Your task to perform on an android device: Search for Mexican restaurants on Maps Image 0: 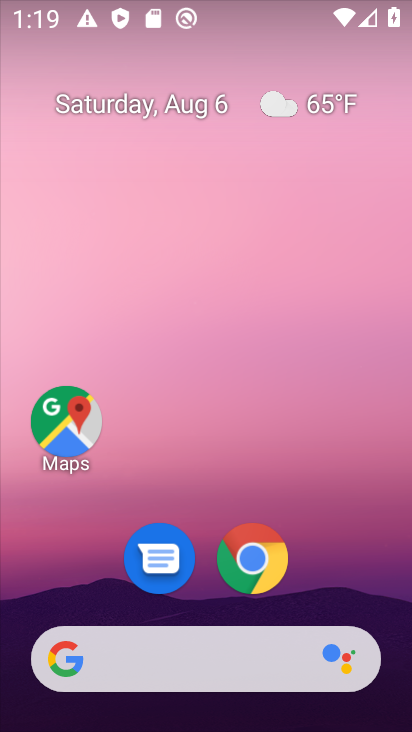
Step 0: click (56, 410)
Your task to perform on an android device: Search for Mexican restaurants on Maps Image 1: 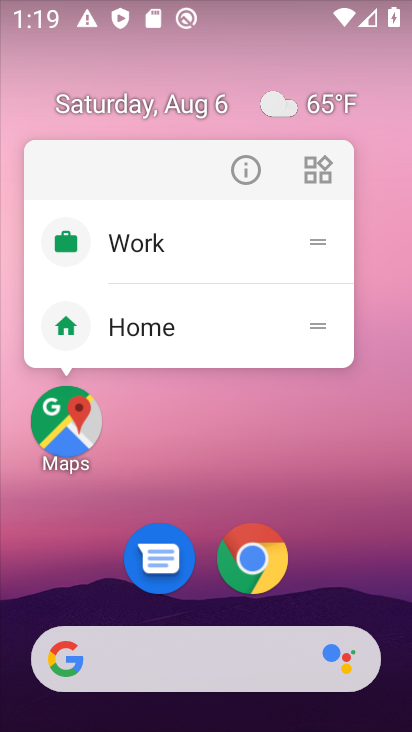
Step 1: click (92, 421)
Your task to perform on an android device: Search for Mexican restaurants on Maps Image 2: 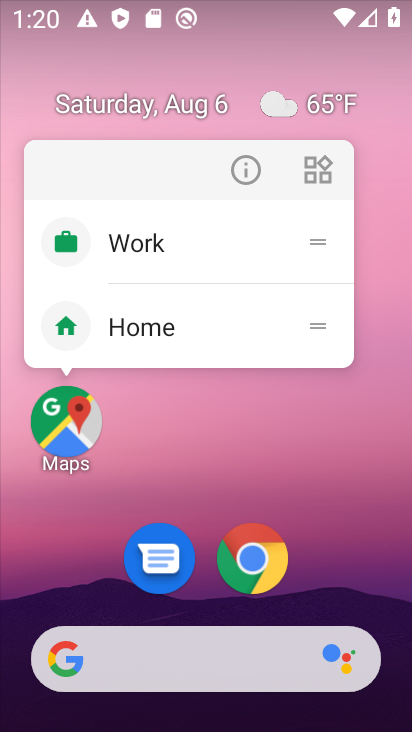
Step 2: click (78, 423)
Your task to perform on an android device: Search for Mexican restaurants on Maps Image 3: 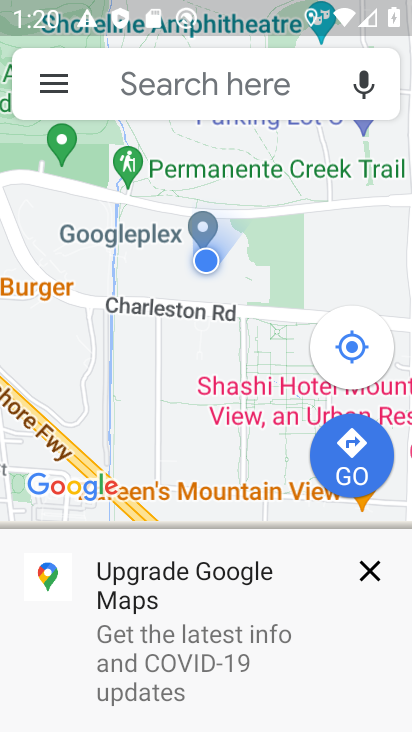
Step 3: click (191, 70)
Your task to perform on an android device: Search for Mexican restaurants on Maps Image 4: 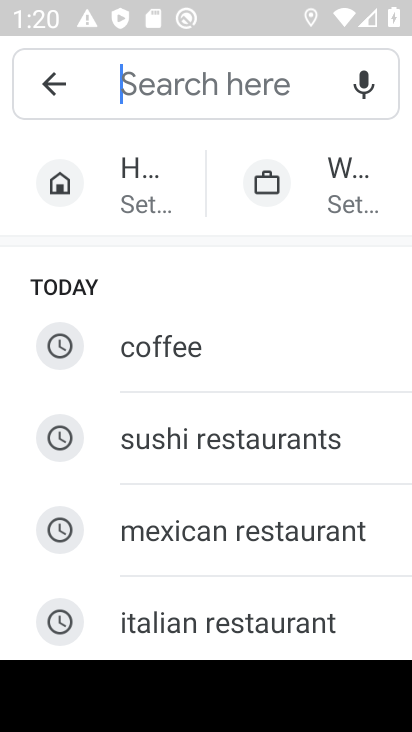
Step 4: click (210, 532)
Your task to perform on an android device: Search for Mexican restaurants on Maps Image 5: 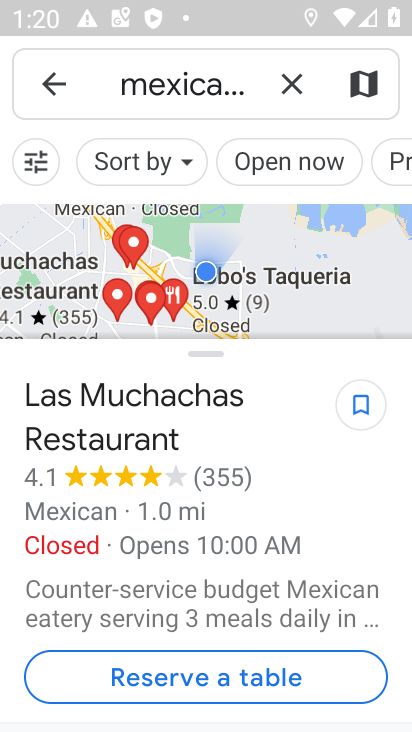
Step 5: task complete